Your task to perform on an android device: set an alarm Image 0: 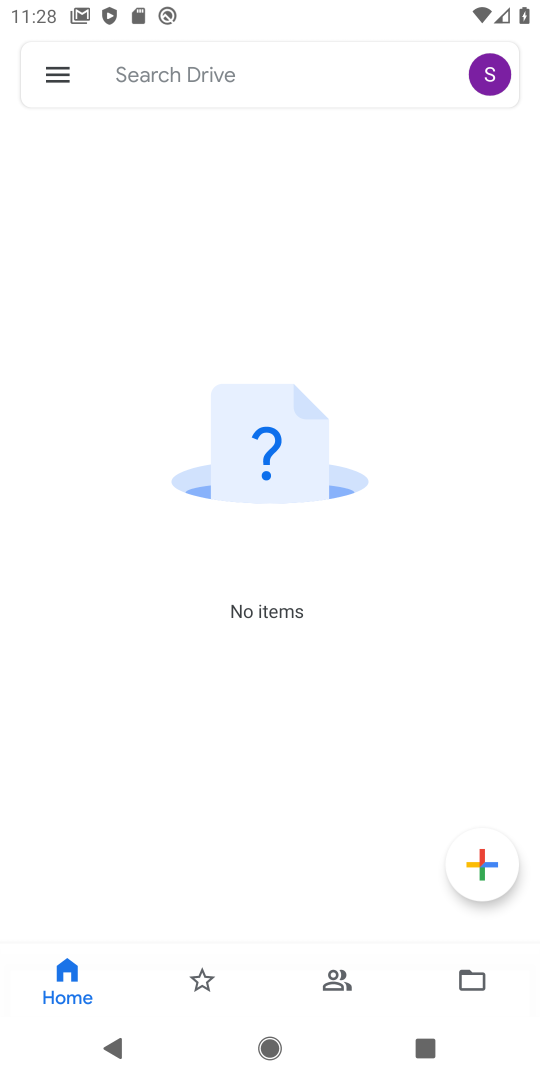
Step 0: task complete